Your task to perform on an android device: Search for vegetarian restaurants on Maps Image 0: 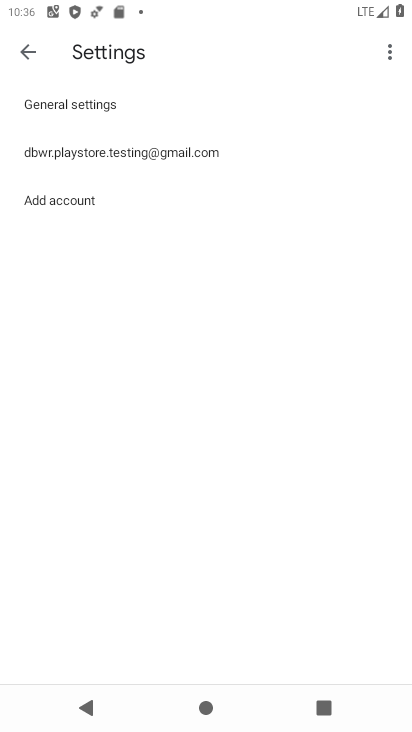
Step 0: press home button
Your task to perform on an android device: Search for vegetarian restaurants on Maps Image 1: 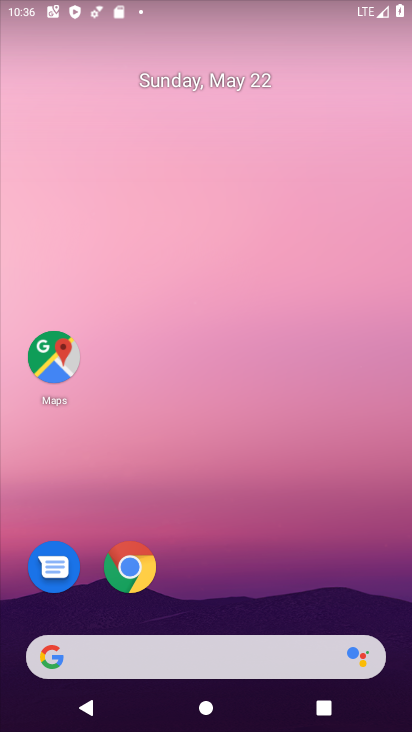
Step 1: click (54, 353)
Your task to perform on an android device: Search for vegetarian restaurants on Maps Image 2: 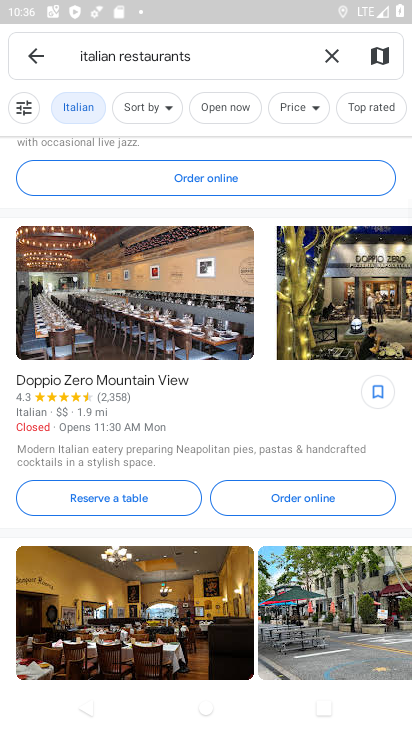
Step 2: click (327, 50)
Your task to perform on an android device: Search for vegetarian restaurants on Maps Image 3: 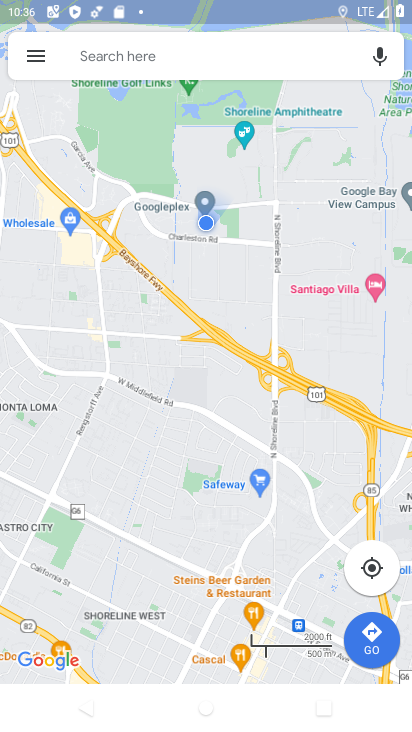
Step 3: click (113, 51)
Your task to perform on an android device: Search for vegetarian restaurants on Maps Image 4: 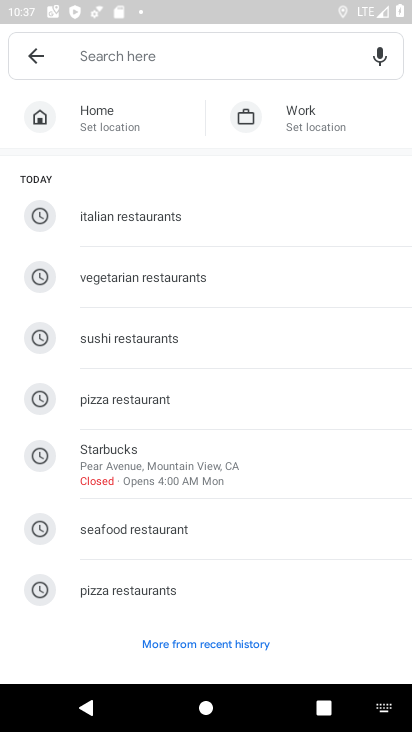
Step 4: type "vegetarian restaurants"
Your task to perform on an android device: Search for vegetarian restaurants on Maps Image 5: 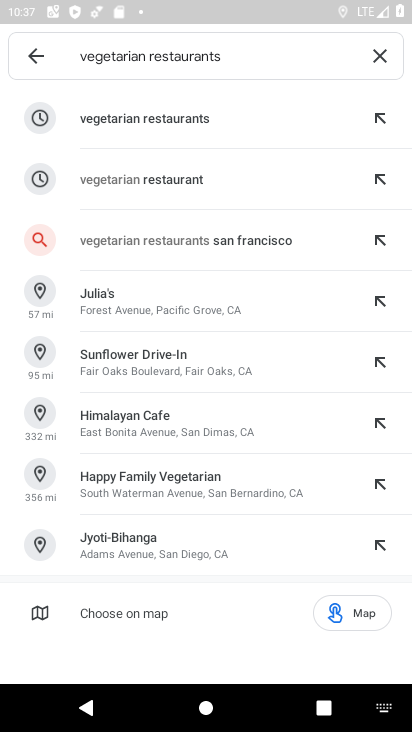
Step 5: click (130, 121)
Your task to perform on an android device: Search for vegetarian restaurants on Maps Image 6: 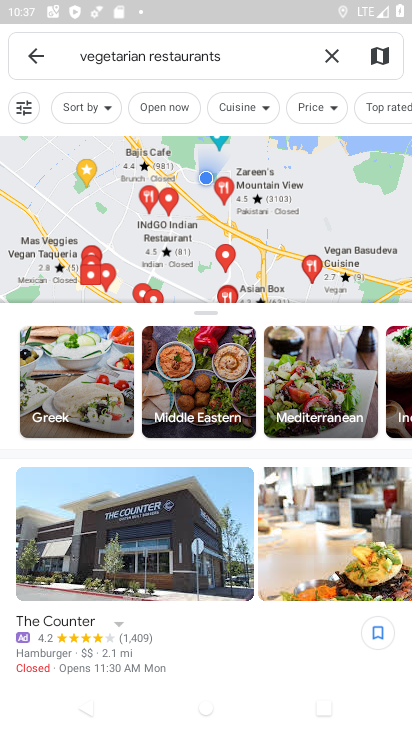
Step 6: task complete